Your task to perform on an android device: set an alarm Image 0: 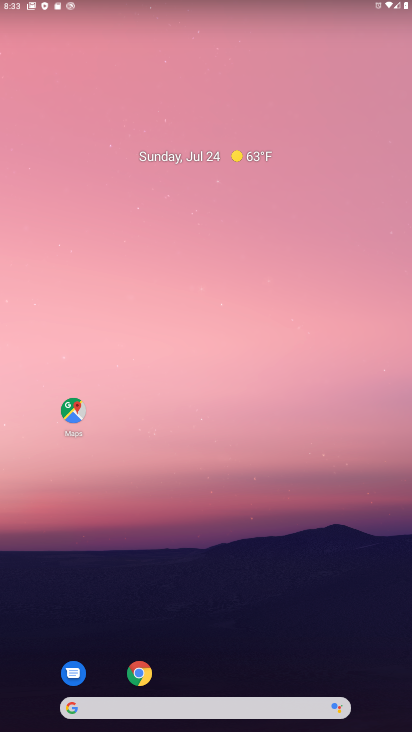
Step 0: drag from (184, 694) to (72, 49)
Your task to perform on an android device: set an alarm Image 1: 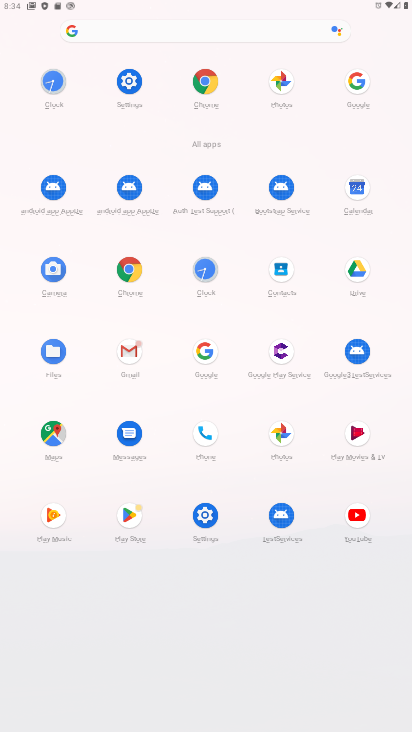
Step 1: click (208, 264)
Your task to perform on an android device: set an alarm Image 2: 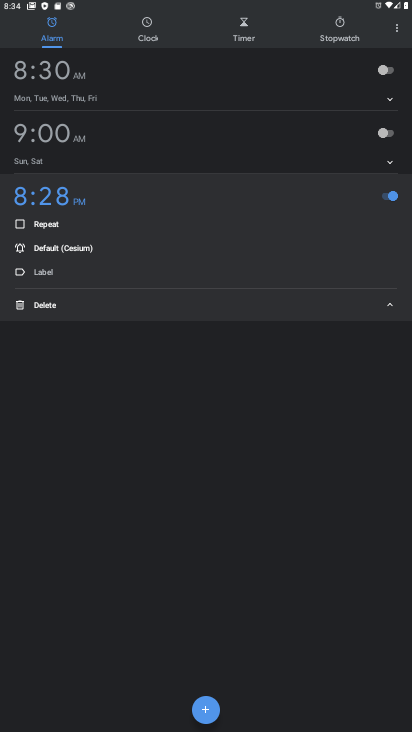
Step 2: click (205, 705)
Your task to perform on an android device: set an alarm Image 3: 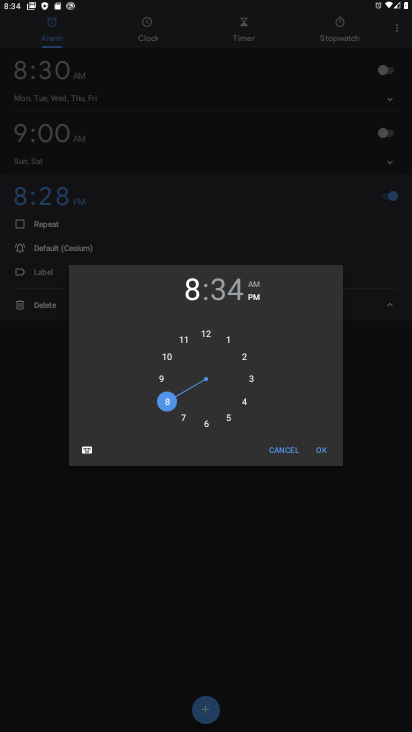
Step 3: click (313, 449)
Your task to perform on an android device: set an alarm Image 4: 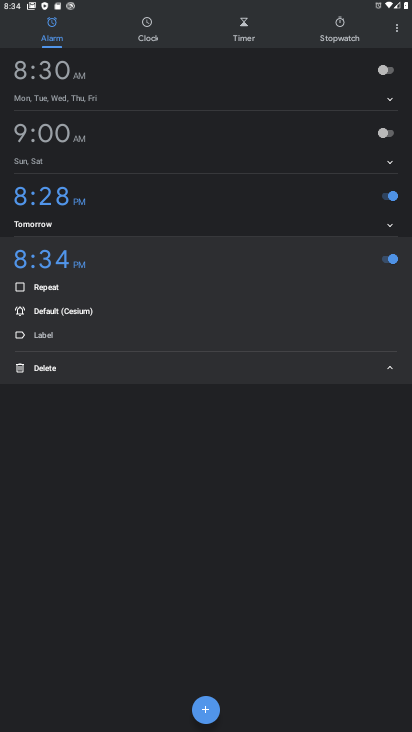
Step 4: task complete